Your task to perform on an android device: turn smart compose on in the gmail app Image 0: 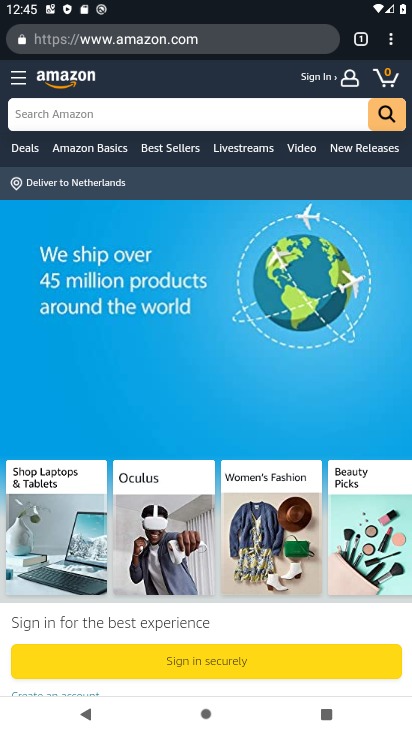
Step 0: press home button
Your task to perform on an android device: turn smart compose on in the gmail app Image 1: 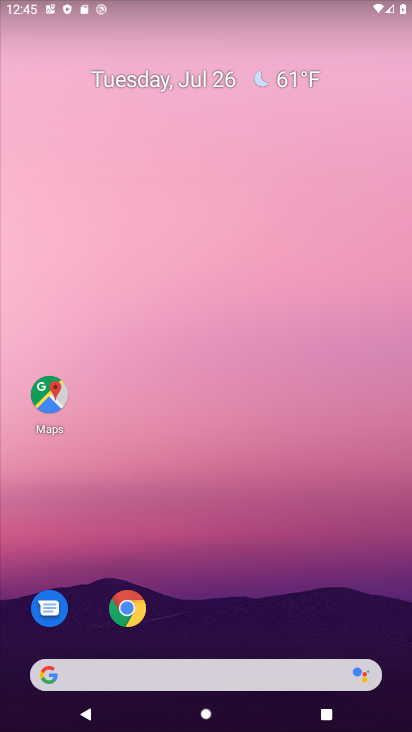
Step 1: drag from (339, 595) to (320, 134)
Your task to perform on an android device: turn smart compose on in the gmail app Image 2: 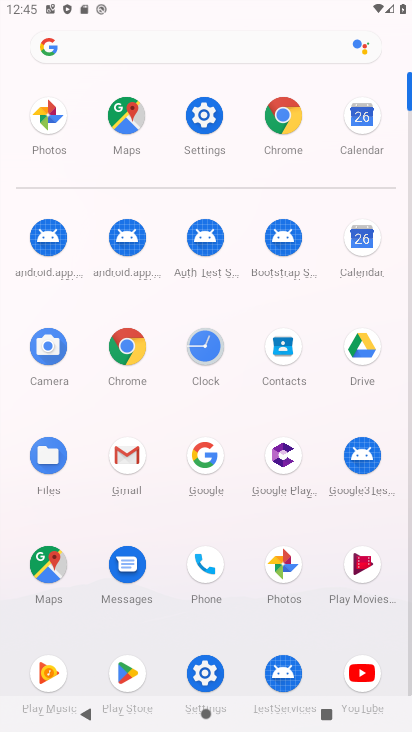
Step 2: click (131, 463)
Your task to perform on an android device: turn smart compose on in the gmail app Image 3: 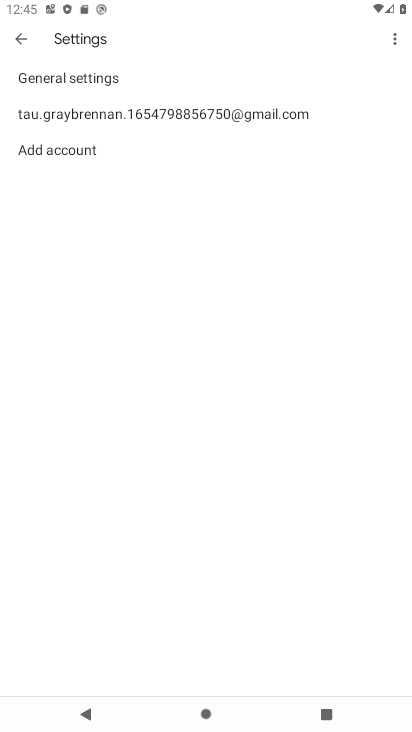
Step 3: click (167, 112)
Your task to perform on an android device: turn smart compose on in the gmail app Image 4: 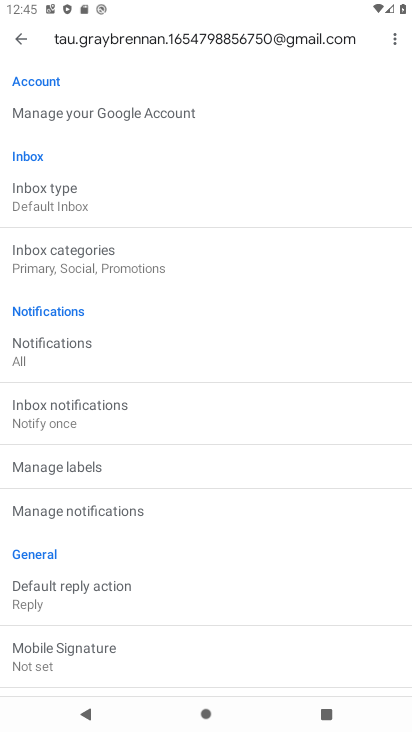
Step 4: task complete